Your task to perform on an android device: turn notification dots on Image 0: 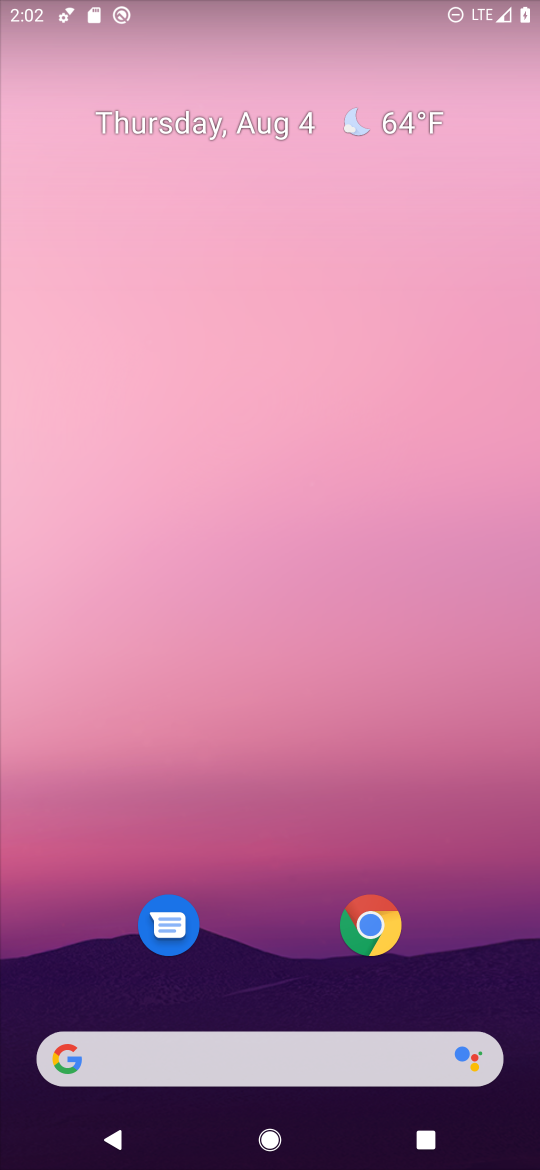
Step 0: drag from (265, 885) to (300, 126)
Your task to perform on an android device: turn notification dots on Image 1: 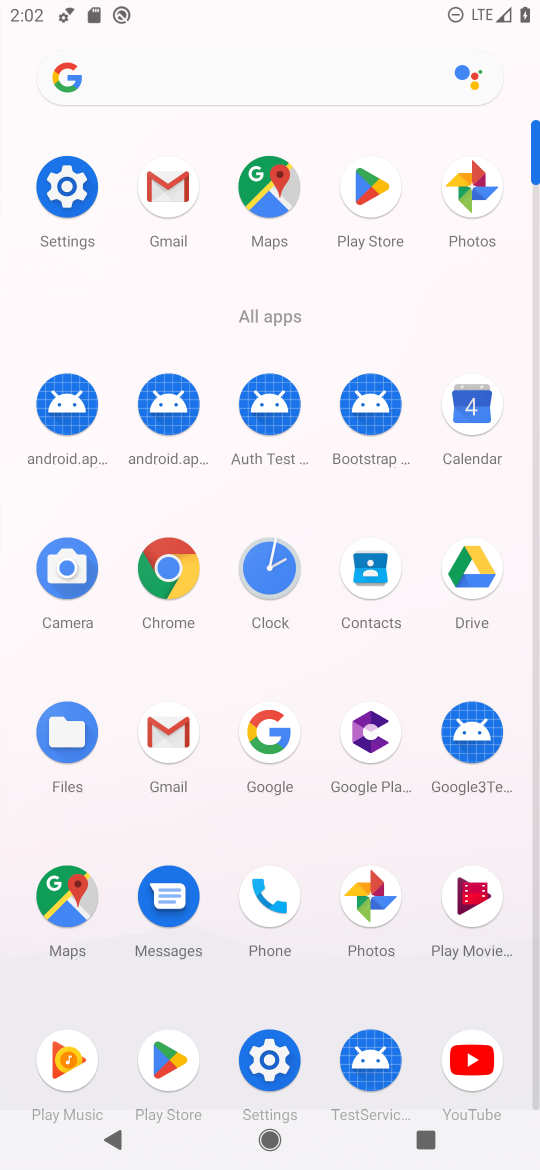
Step 1: click (275, 1046)
Your task to perform on an android device: turn notification dots on Image 2: 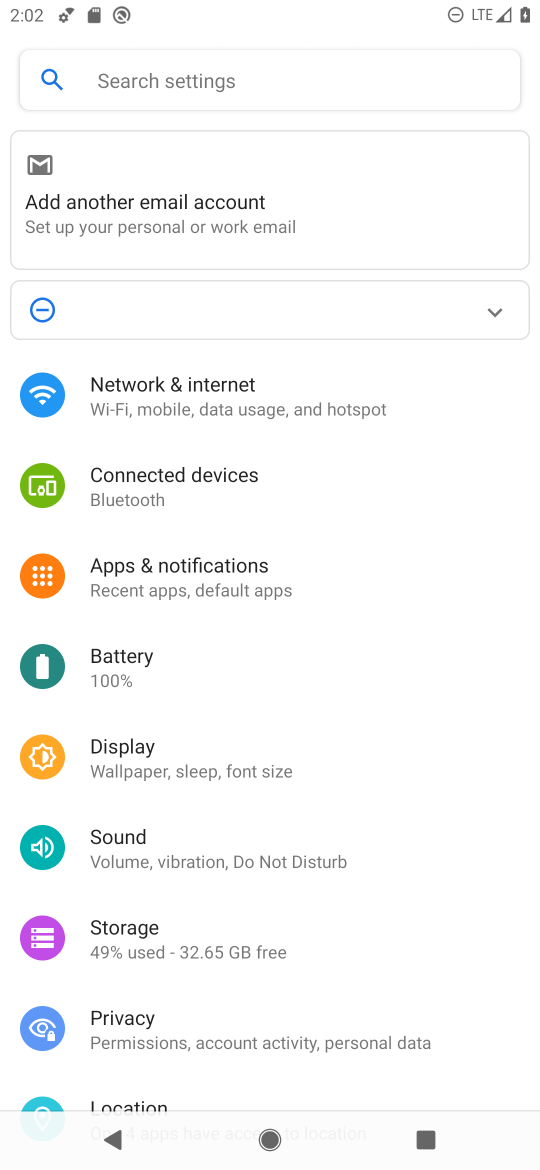
Step 2: click (156, 588)
Your task to perform on an android device: turn notification dots on Image 3: 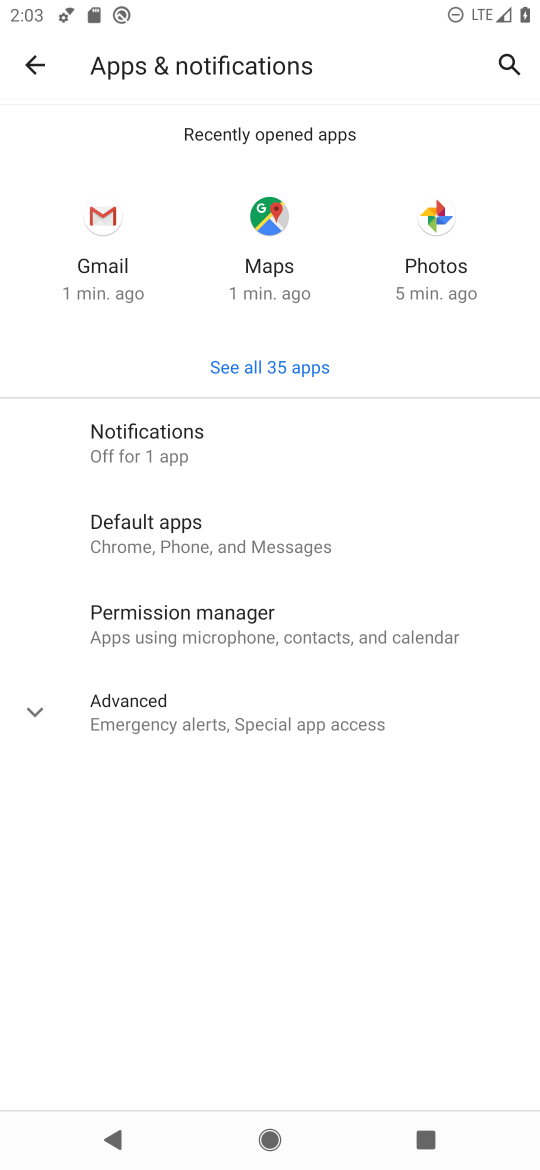
Step 3: click (120, 438)
Your task to perform on an android device: turn notification dots on Image 4: 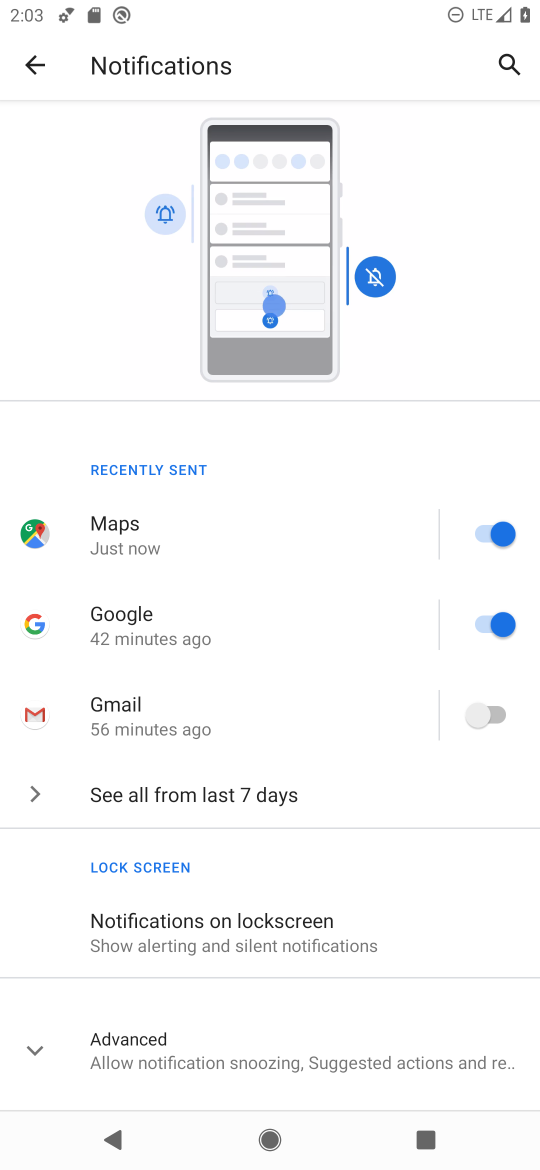
Step 4: click (340, 923)
Your task to perform on an android device: turn notification dots on Image 5: 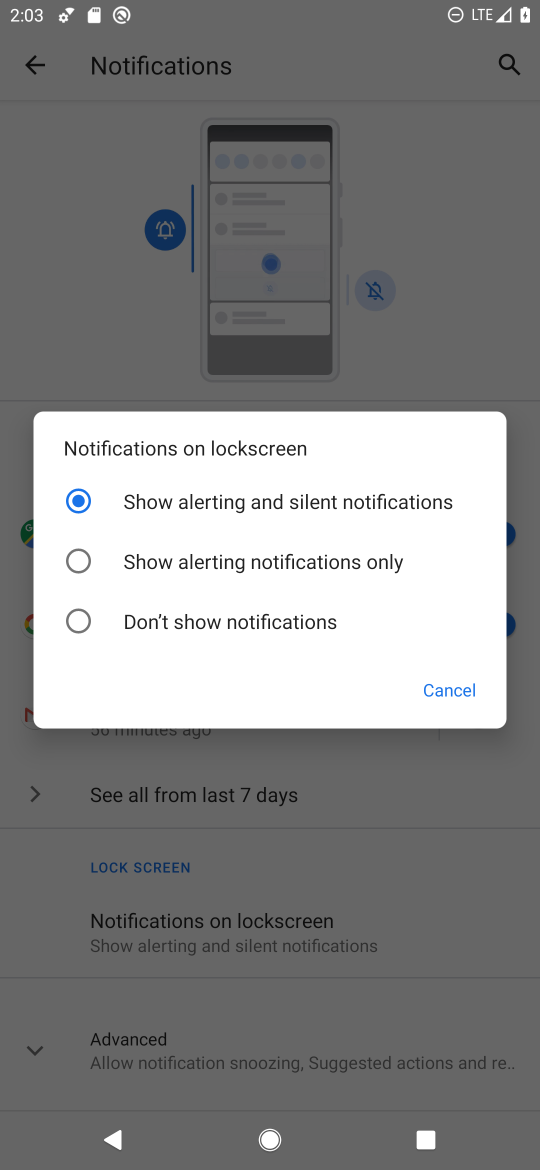
Step 5: click (435, 688)
Your task to perform on an android device: turn notification dots on Image 6: 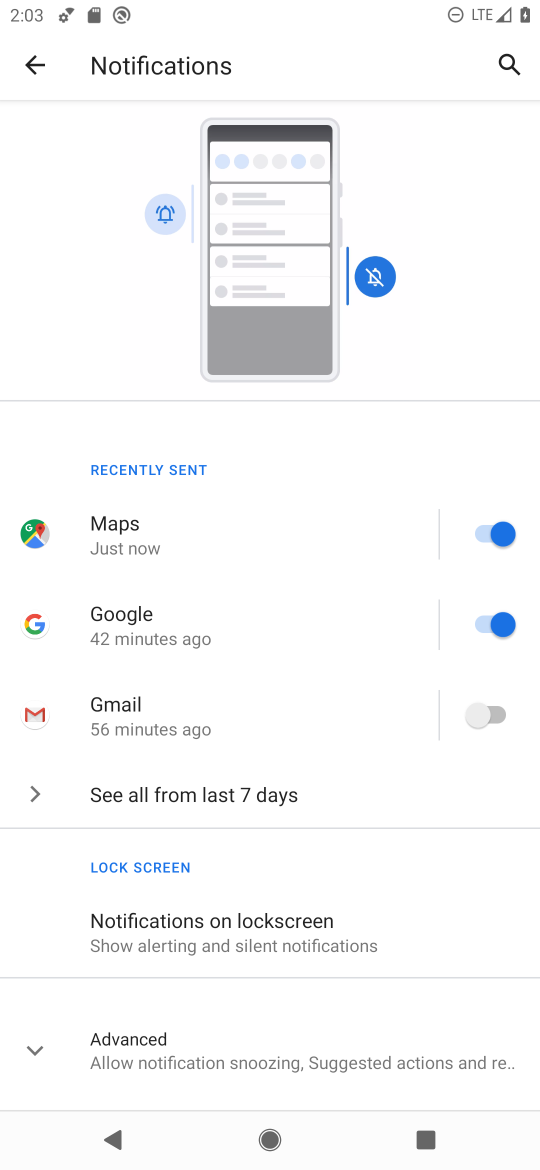
Step 6: click (228, 1063)
Your task to perform on an android device: turn notification dots on Image 7: 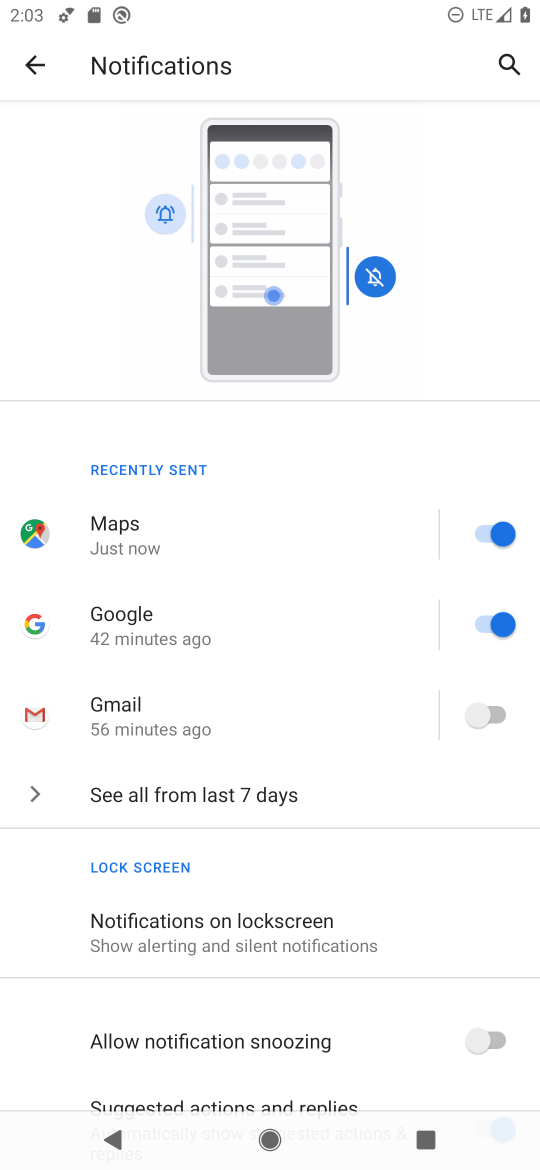
Step 7: task complete